Your task to perform on an android device: turn off notifications settings in the gmail app Image 0: 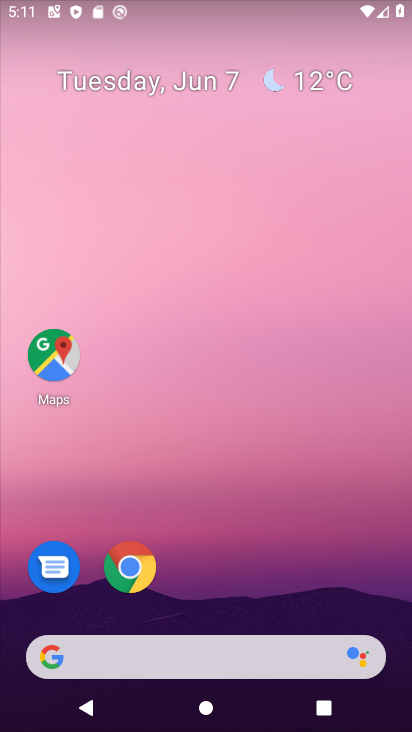
Step 0: drag from (304, 575) to (259, 6)
Your task to perform on an android device: turn off notifications settings in the gmail app Image 1: 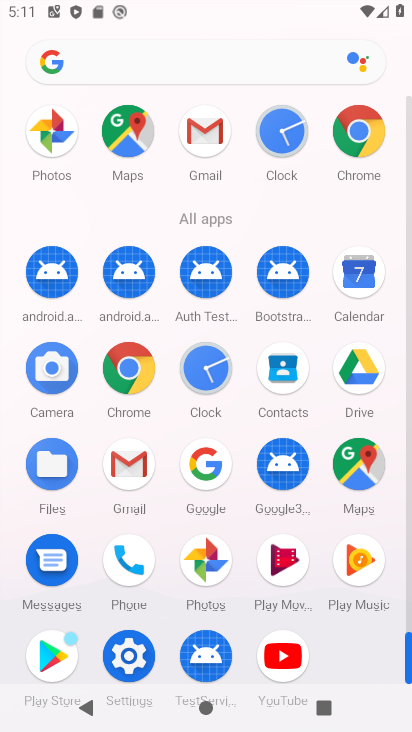
Step 1: drag from (6, 559) to (21, 223)
Your task to perform on an android device: turn off notifications settings in the gmail app Image 2: 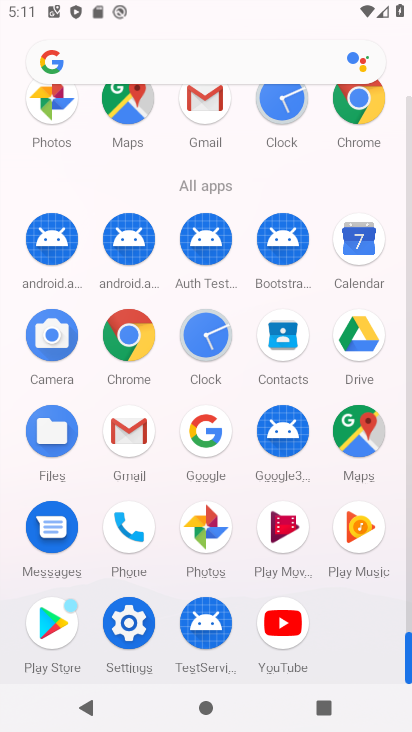
Step 2: click (128, 424)
Your task to perform on an android device: turn off notifications settings in the gmail app Image 3: 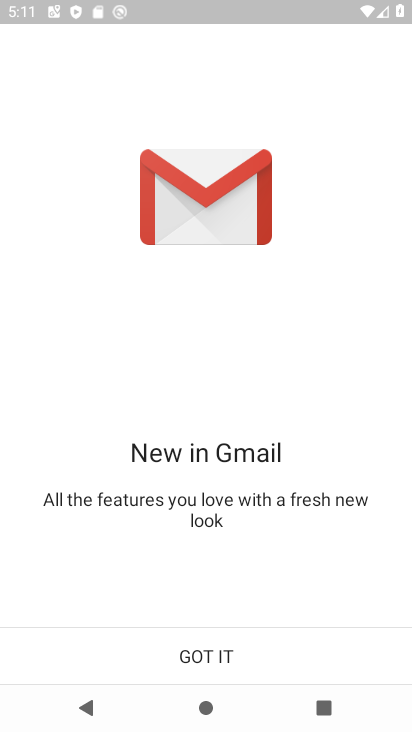
Step 3: click (227, 643)
Your task to perform on an android device: turn off notifications settings in the gmail app Image 4: 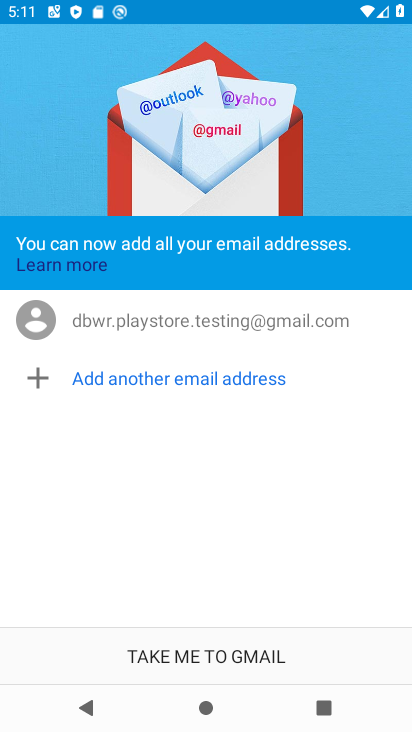
Step 4: click (219, 648)
Your task to perform on an android device: turn off notifications settings in the gmail app Image 5: 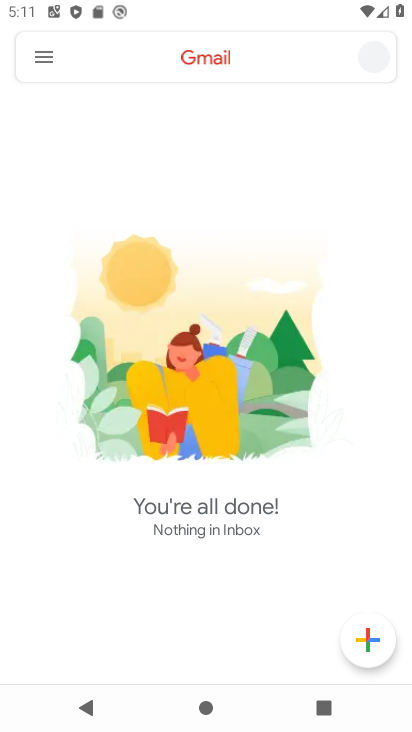
Step 5: click (48, 56)
Your task to perform on an android device: turn off notifications settings in the gmail app Image 6: 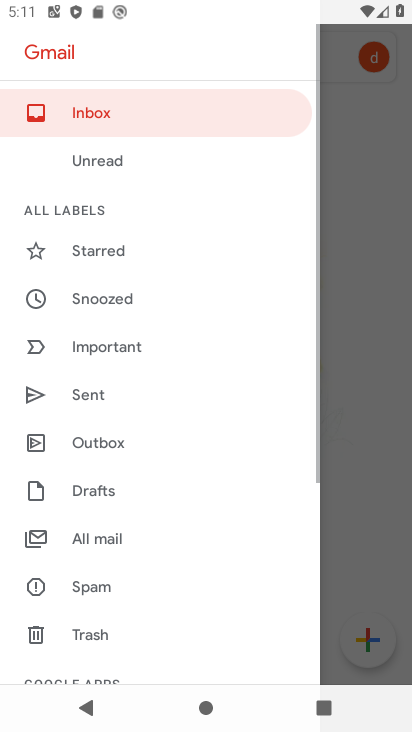
Step 6: drag from (146, 555) to (155, 140)
Your task to perform on an android device: turn off notifications settings in the gmail app Image 7: 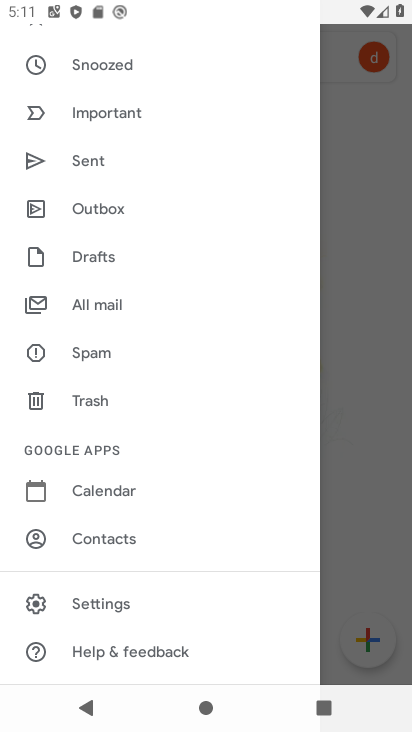
Step 7: click (140, 598)
Your task to perform on an android device: turn off notifications settings in the gmail app Image 8: 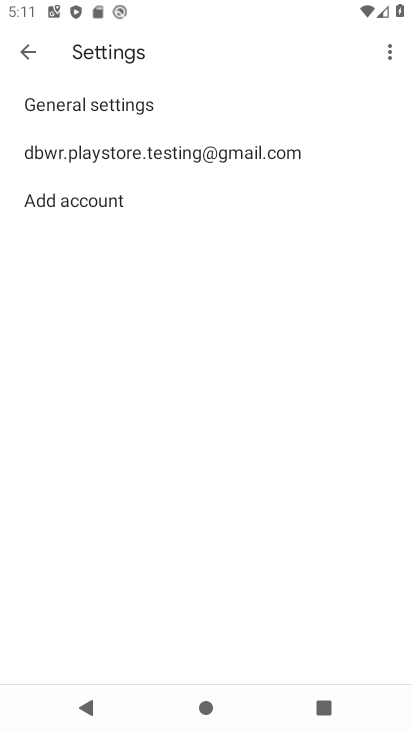
Step 8: click (138, 155)
Your task to perform on an android device: turn off notifications settings in the gmail app Image 9: 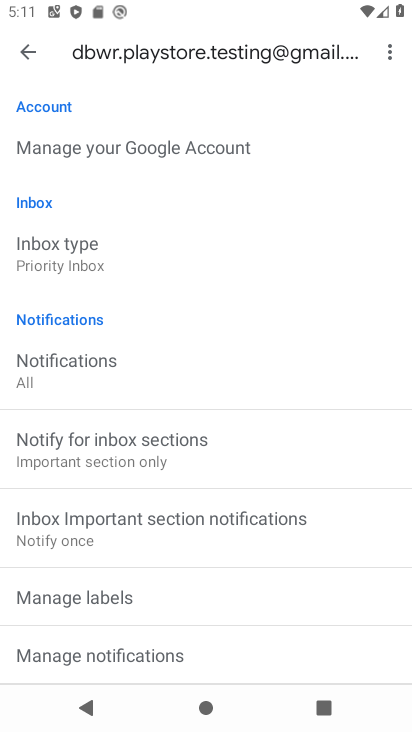
Step 9: click (140, 639)
Your task to perform on an android device: turn off notifications settings in the gmail app Image 10: 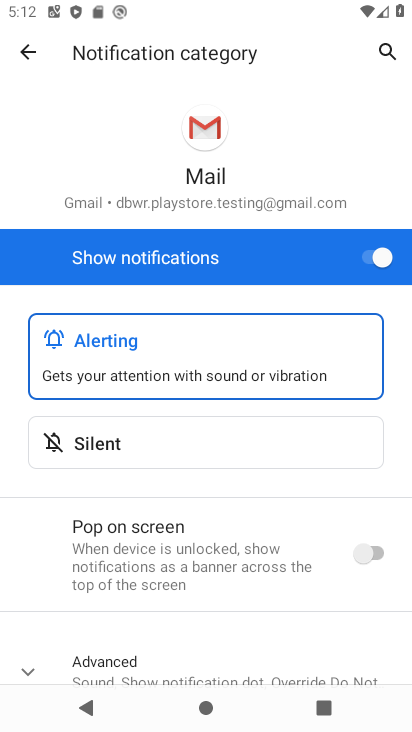
Step 10: click (371, 250)
Your task to perform on an android device: turn off notifications settings in the gmail app Image 11: 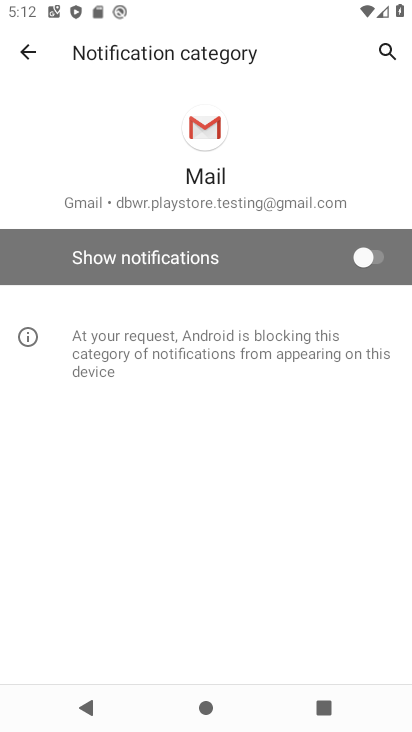
Step 11: task complete